Your task to perform on an android device: empty trash in the gmail app Image 0: 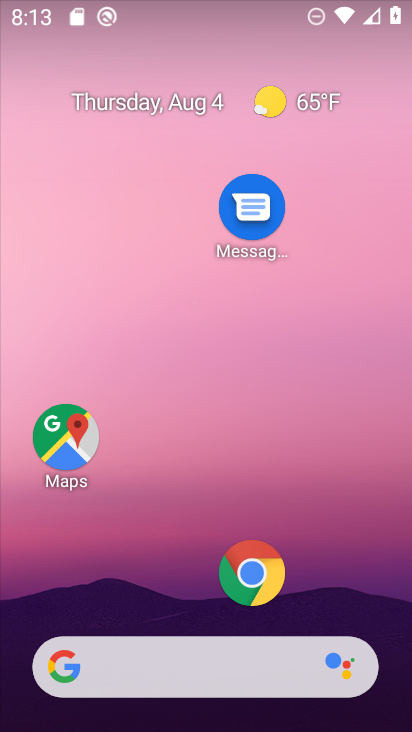
Step 0: press home button
Your task to perform on an android device: empty trash in the gmail app Image 1: 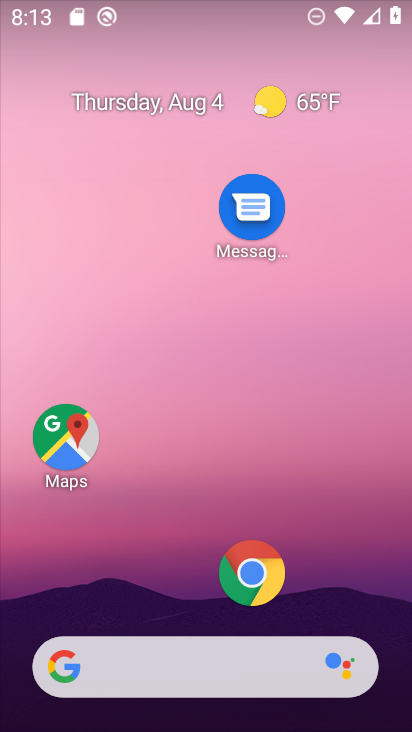
Step 1: drag from (143, 630) to (229, 129)
Your task to perform on an android device: empty trash in the gmail app Image 2: 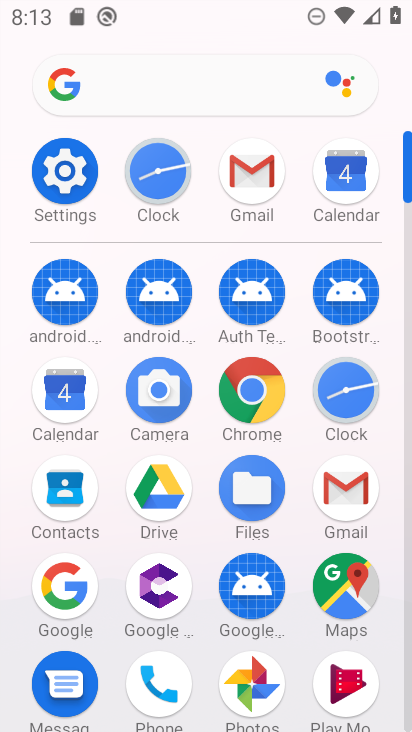
Step 2: click (249, 164)
Your task to perform on an android device: empty trash in the gmail app Image 3: 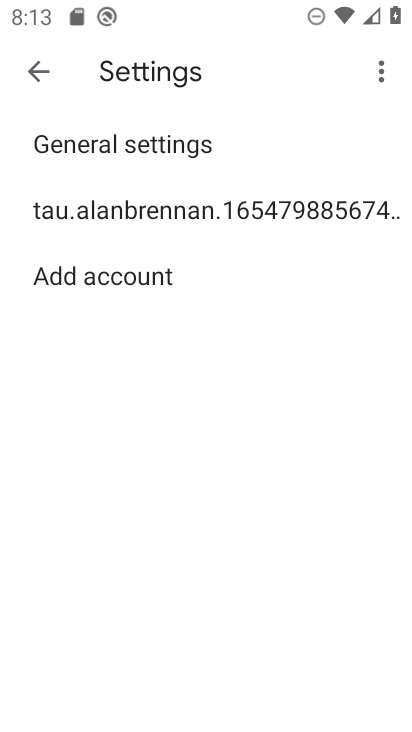
Step 3: click (34, 66)
Your task to perform on an android device: empty trash in the gmail app Image 4: 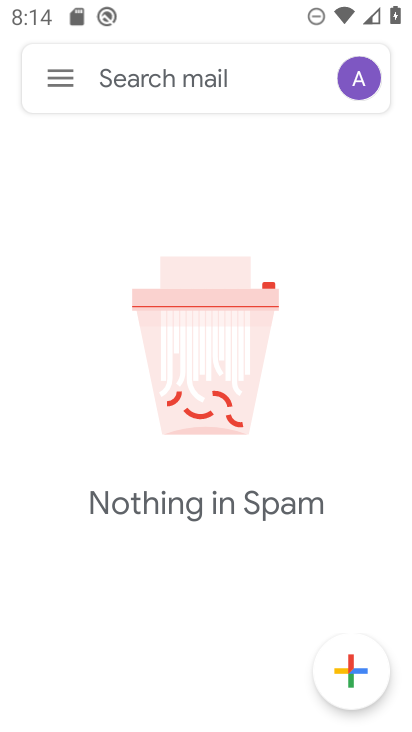
Step 4: click (30, 69)
Your task to perform on an android device: empty trash in the gmail app Image 5: 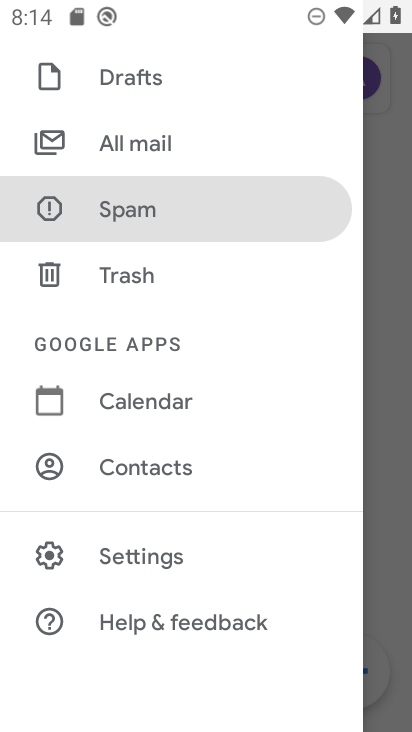
Step 5: click (153, 282)
Your task to perform on an android device: empty trash in the gmail app Image 6: 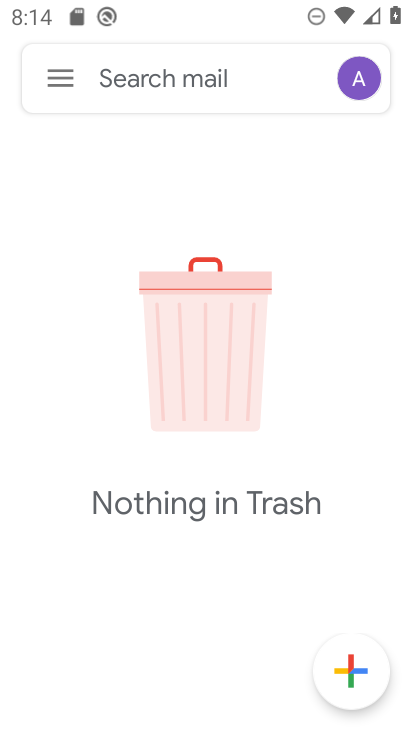
Step 6: task complete